Your task to perform on an android device: change notifications settings Image 0: 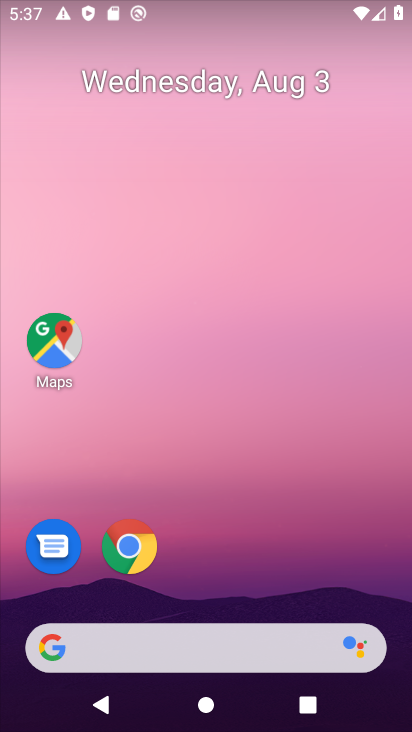
Step 0: drag from (199, 616) to (252, 231)
Your task to perform on an android device: change notifications settings Image 1: 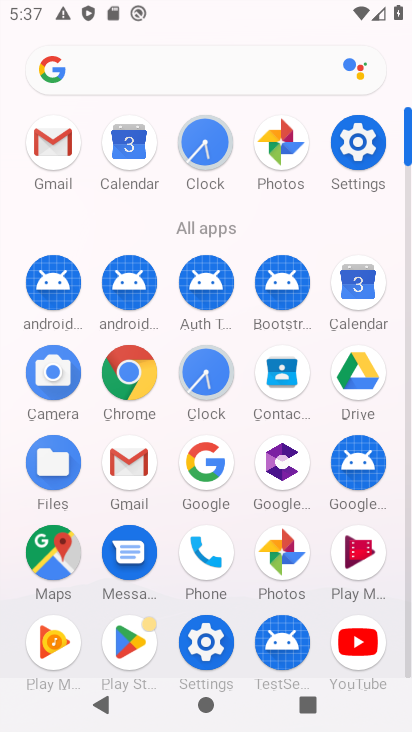
Step 1: click (356, 159)
Your task to perform on an android device: change notifications settings Image 2: 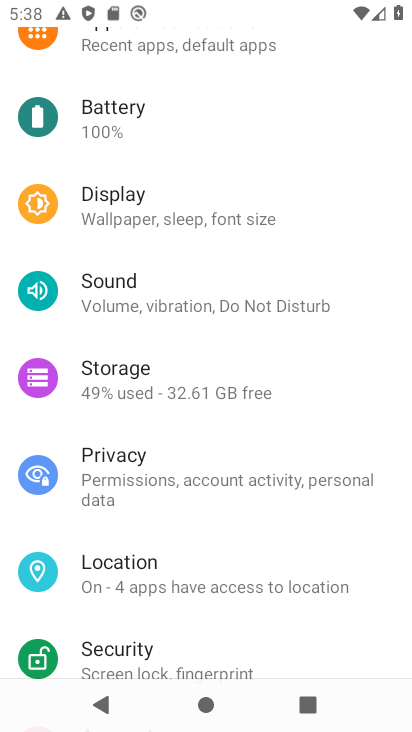
Step 2: drag from (272, 147) to (295, 636)
Your task to perform on an android device: change notifications settings Image 3: 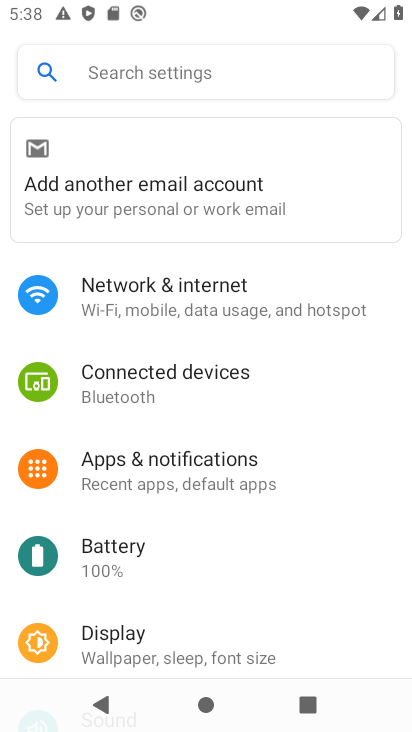
Step 3: click (136, 467)
Your task to perform on an android device: change notifications settings Image 4: 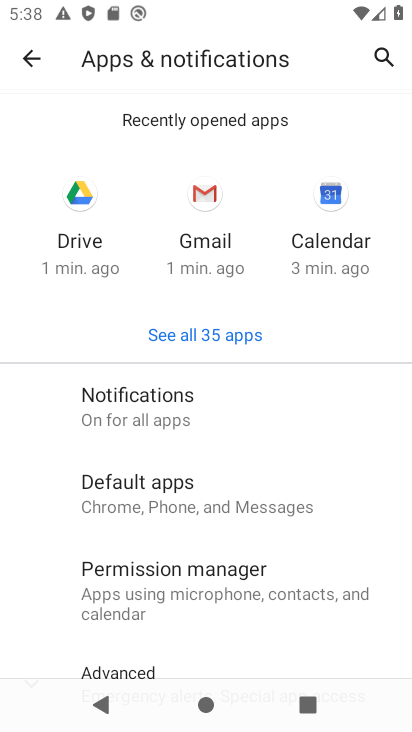
Step 4: click (147, 406)
Your task to perform on an android device: change notifications settings Image 5: 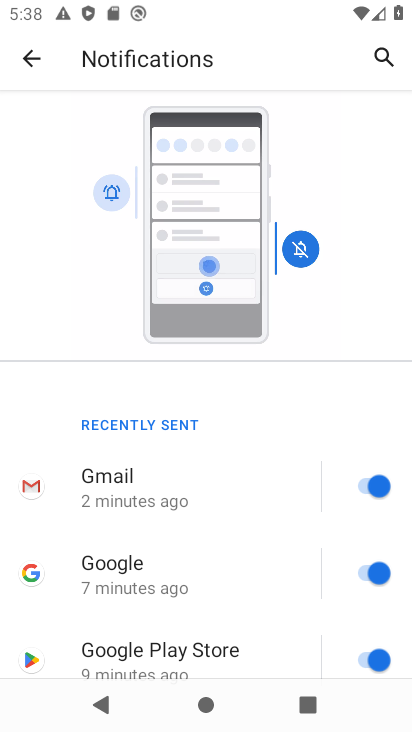
Step 5: drag from (271, 606) to (408, 314)
Your task to perform on an android device: change notifications settings Image 6: 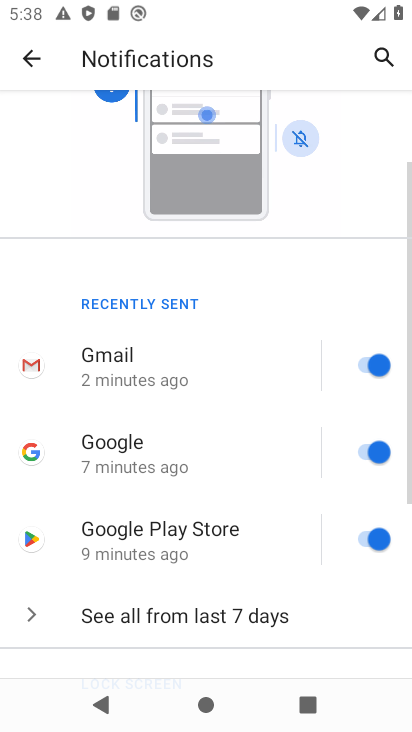
Step 6: drag from (290, 579) to (365, 13)
Your task to perform on an android device: change notifications settings Image 7: 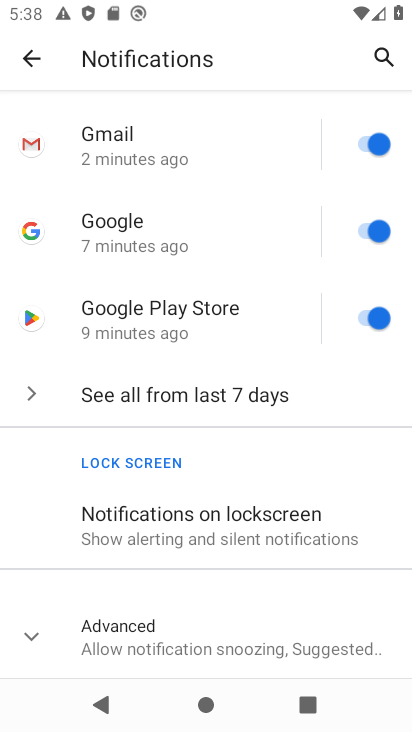
Step 7: click (221, 527)
Your task to perform on an android device: change notifications settings Image 8: 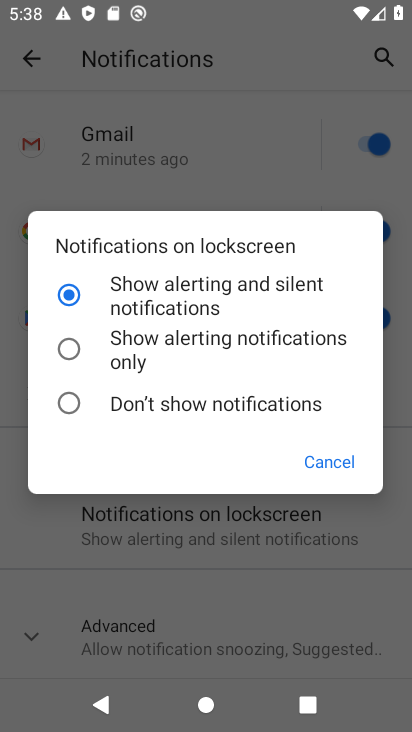
Step 8: click (79, 402)
Your task to perform on an android device: change notifications settings Image 9: 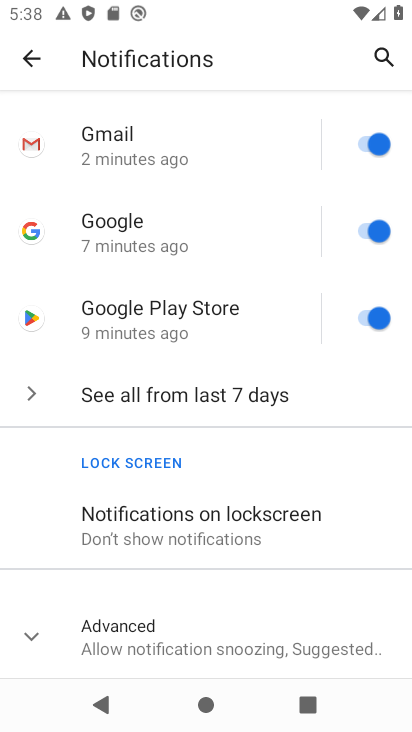
Step 9: task complete